Your task to perform on an android device: Open calendar and show me the first week of next month Image 0: 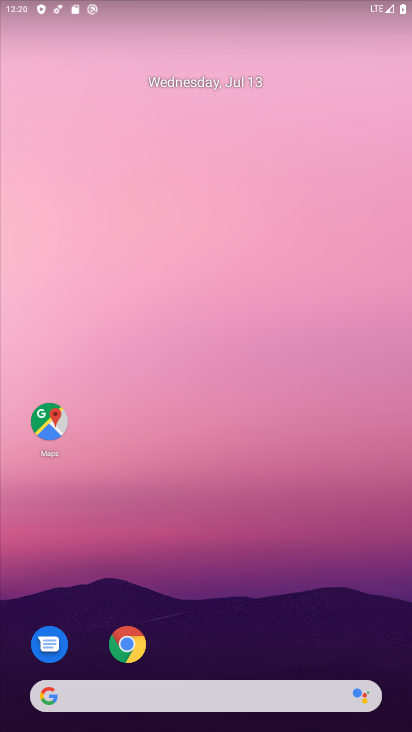
Step 0: click (198, 652)
Your task to perform on an android device: Open calendar and show me the first week of next month Image 1: 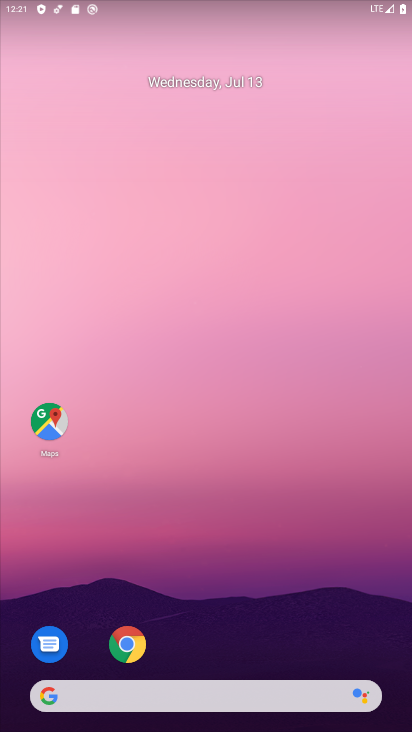
Step 1: drag from (213, 598) to (192, 43)
Your task to perform on an android device: Open calendar and show me the first week of next month Image 2: 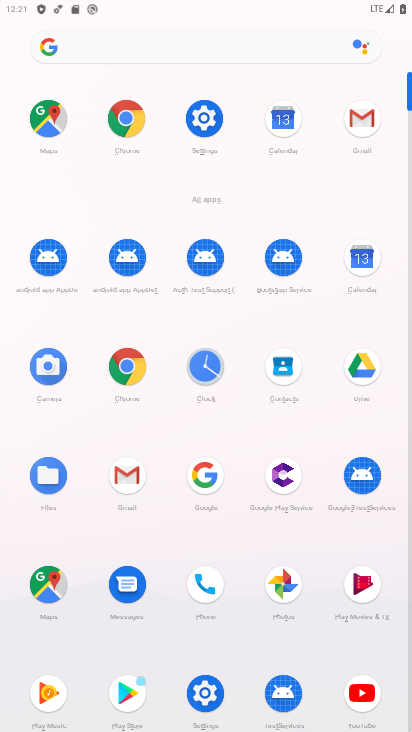
Step 2: click (371, 270)
Your task to perform on an android device: Open calendar and show me the first week of next month Image 3: 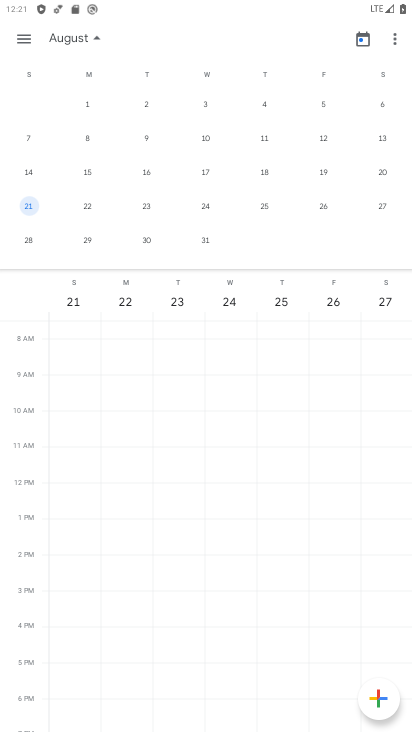
Step 3: click (87, 102)
Your task to perform on an android device: Open calendar and show me the first week of next month Image 4: 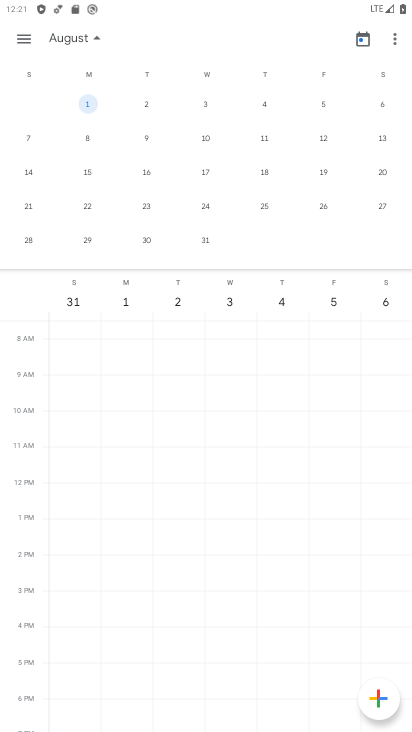
Step 4: click (87, 110)
Your task to perform on an android device: Open calendar and show me the first week of next month Image 5: 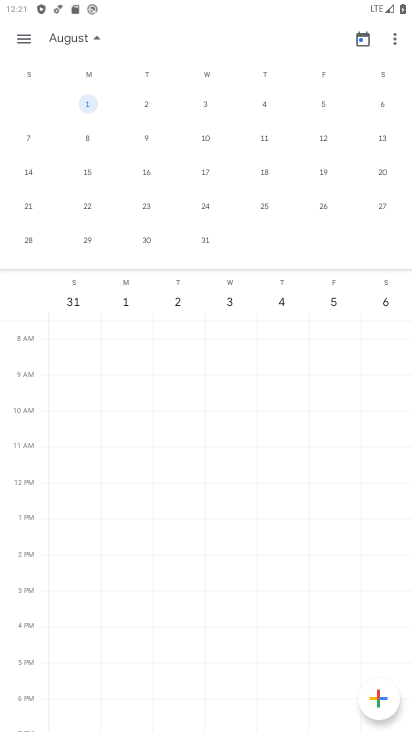
Step 5: click (90, 108)
Your task to perform on an android device: Open calendar and show me the first week of next month Image 6: 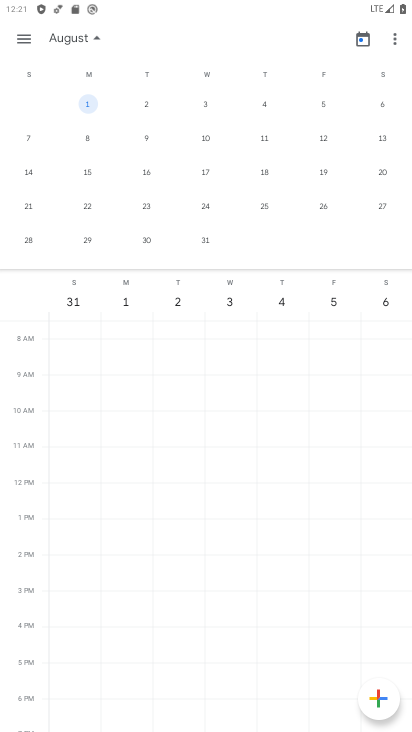
Step 6: click (27, 43)
Your task to perform on an android device: Open calendar and show me the first week of next month Image 7: 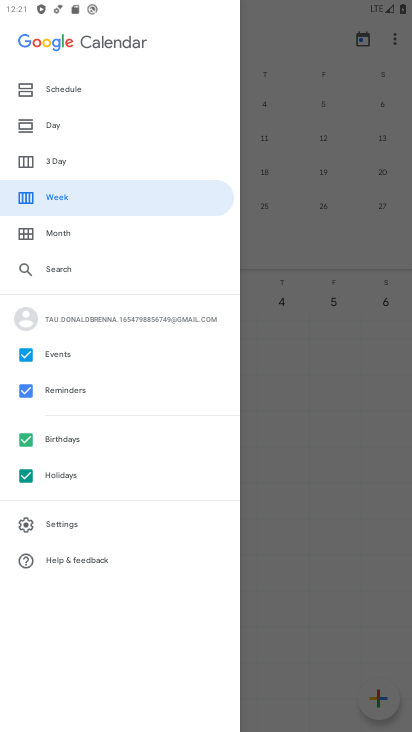
Step 7: press back button
Your task to perform on an android device: Open calendar and show me the first week of next month Image 8: 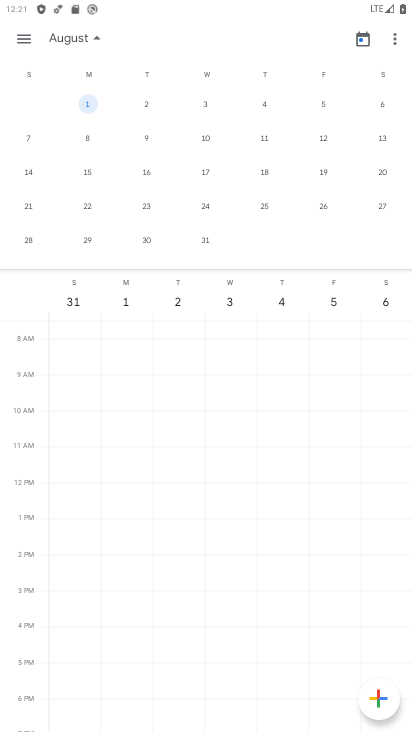
Step 8: click (81, 101)
Your task to perform on an android device: Open calendar and show me the first week of next month Image 9: 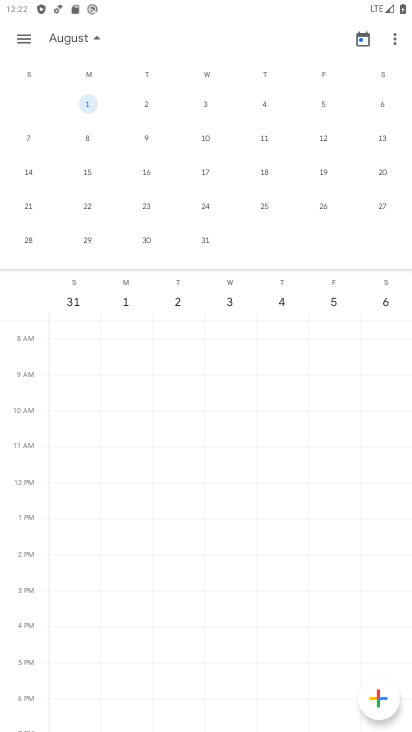
Step 9: task complete